Your task to perform on an android device: What's on my calendar tomorrow? Image 0: 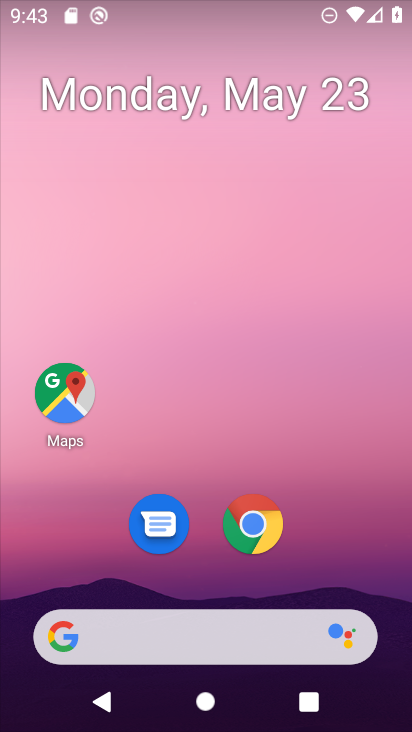
Step 0: drag from (251, 458) to (289, 2)
Your task to perform on an android device: What's on my calendar tomorrow? Image 1: 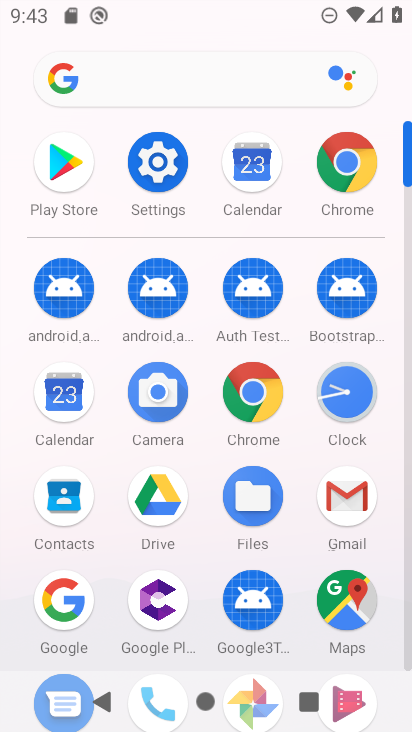
Step 1: click (52, 394)
Your task to perform on an android device: What's on my calendar tomorrow? Image 2: 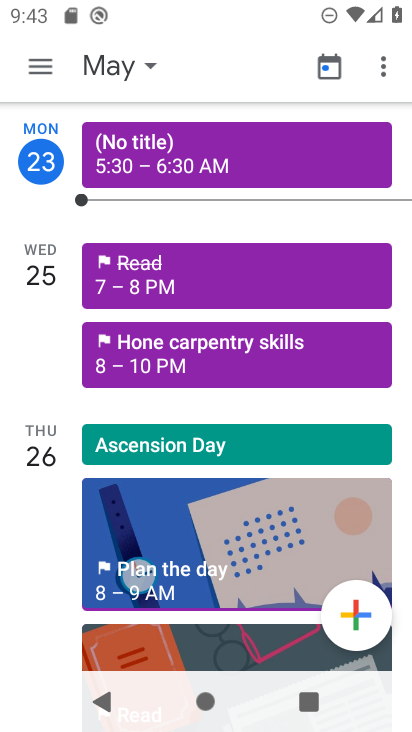
Step 2: task complete